Your task to perform on an android device: Open Google Maps Image 0: 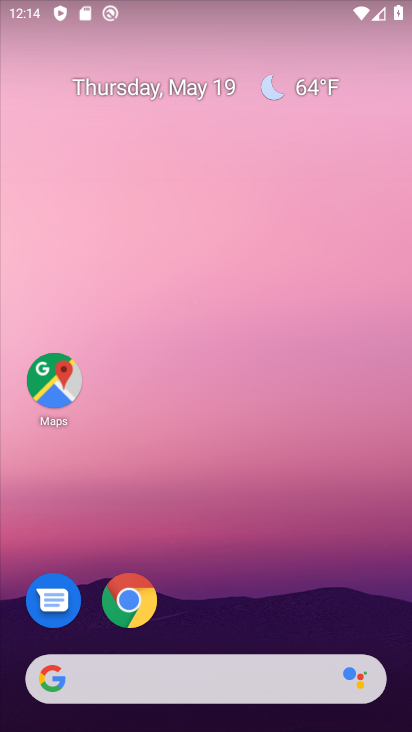
Step 0: drag from (230, 639) to (282, 0)
Your task to perform on an android device: Open Google Maps Image 1: 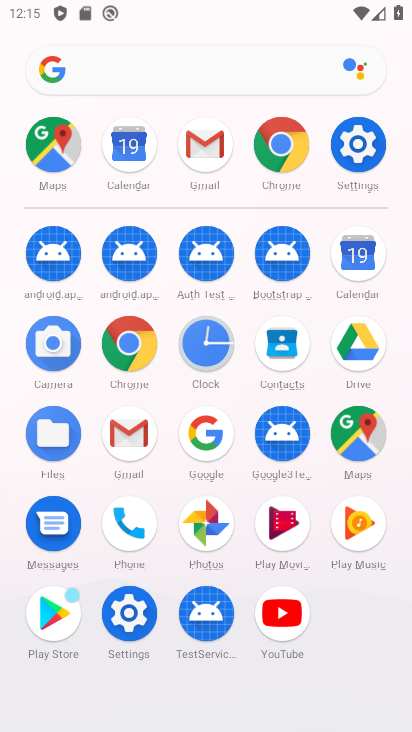
Step 1: click (348, 433)
Your task to perform on an android device: Open Google Maps Image 2: 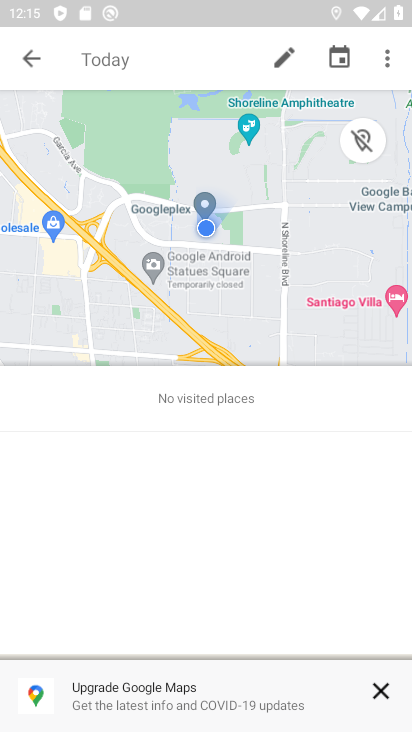
Step 2: click (381, 685)
Your task to perform on an android device: Open Google Maps Image 3: 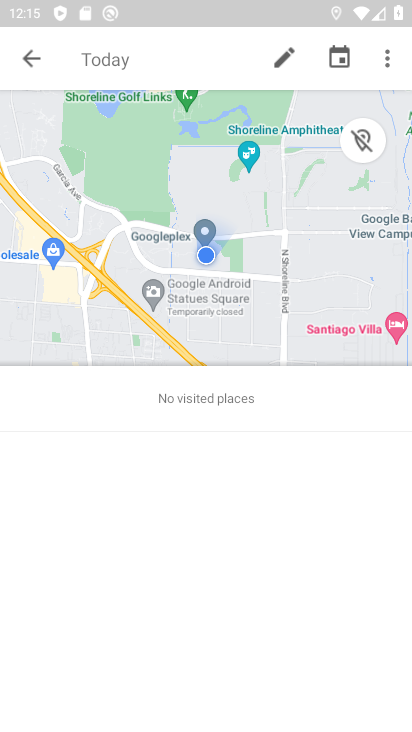
Step 3: task complete